Your task to perform on an android device: change timer sound Image 0: 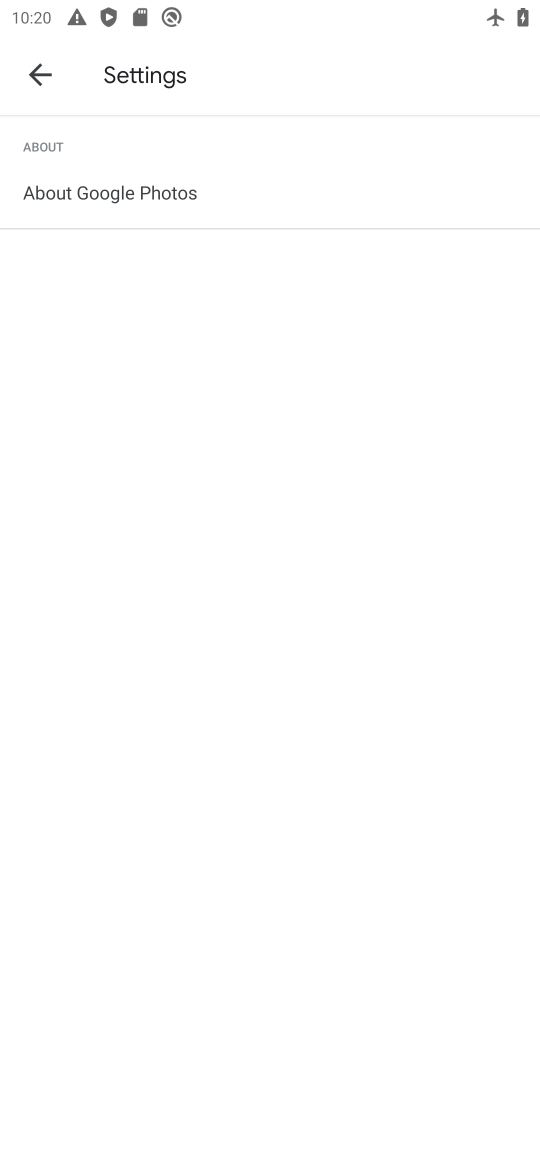
Step 0: press home button
Your task to perform on an android device: change timer sound Image 1: 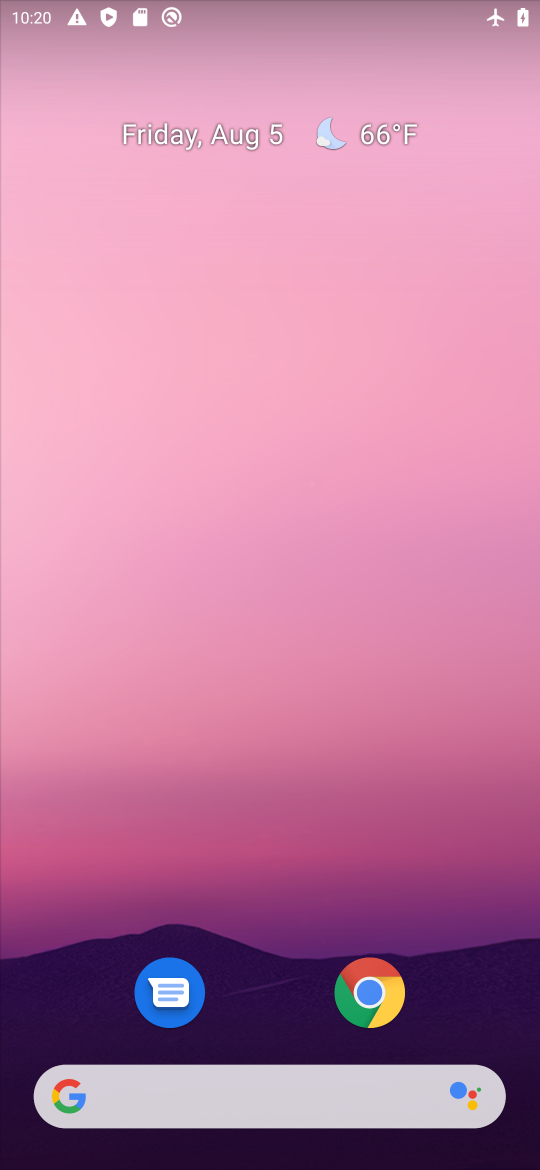
Step 1: drag from (294, 866) to (287, 378)
Your task to perform on an android device: change timer sound Image 2: 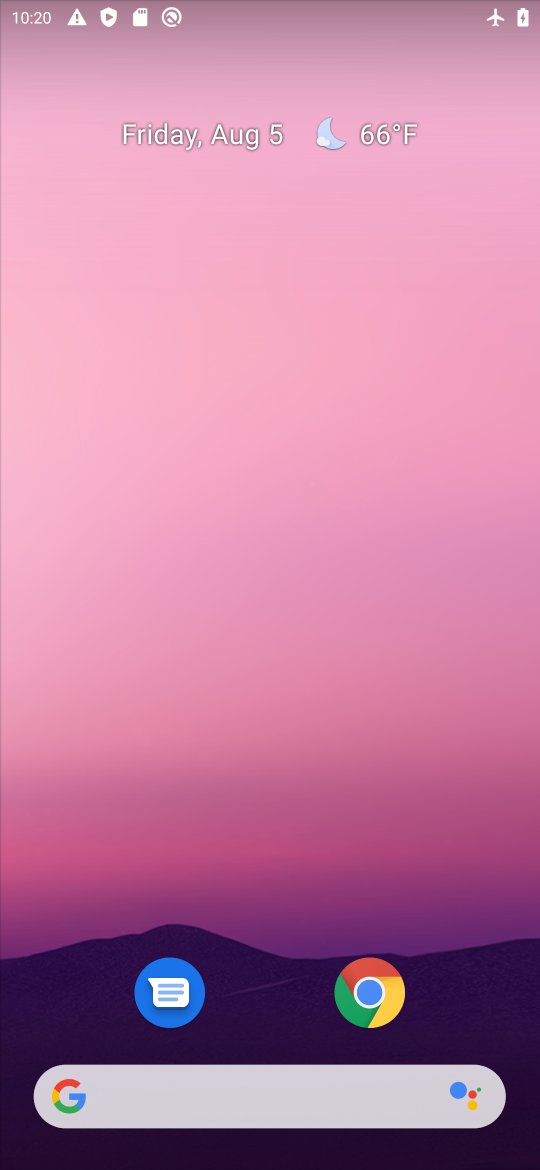
Step 2: drag from (304, 948) to (311, 212)
Your task to perform on an android device: change timer sound Image 3: 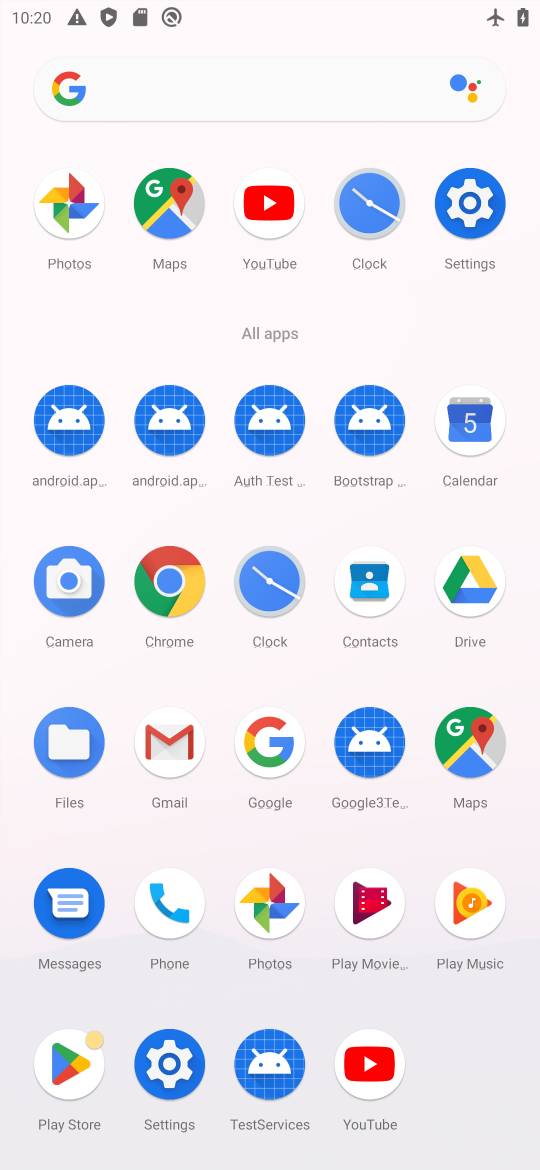
Step 3: click (281, 604)
Your task to perform on an android device: change timer sound Image 4: 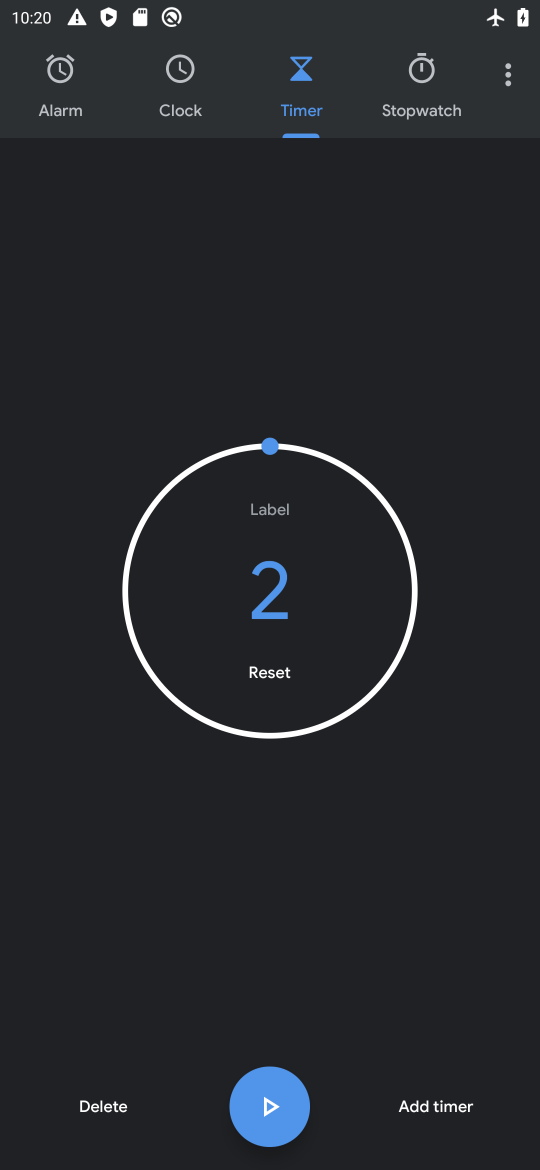
Step 4: click (504, 83)
Your task to perform on an android device: change timer sound Image 5: 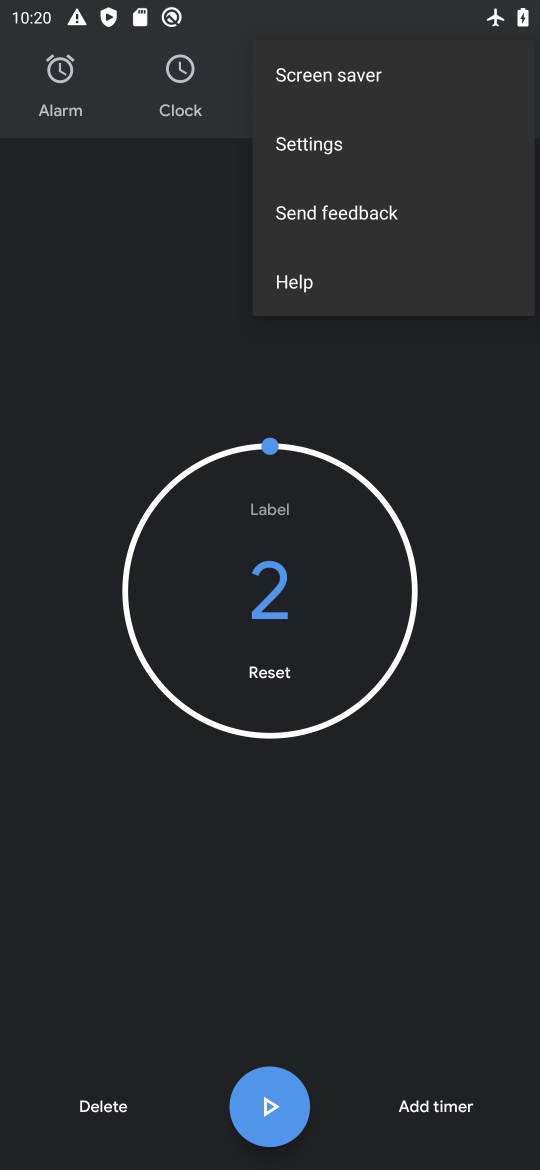
Step 5: click (349, 147)
Your task to perform on an android device: change timer sound Image 6: 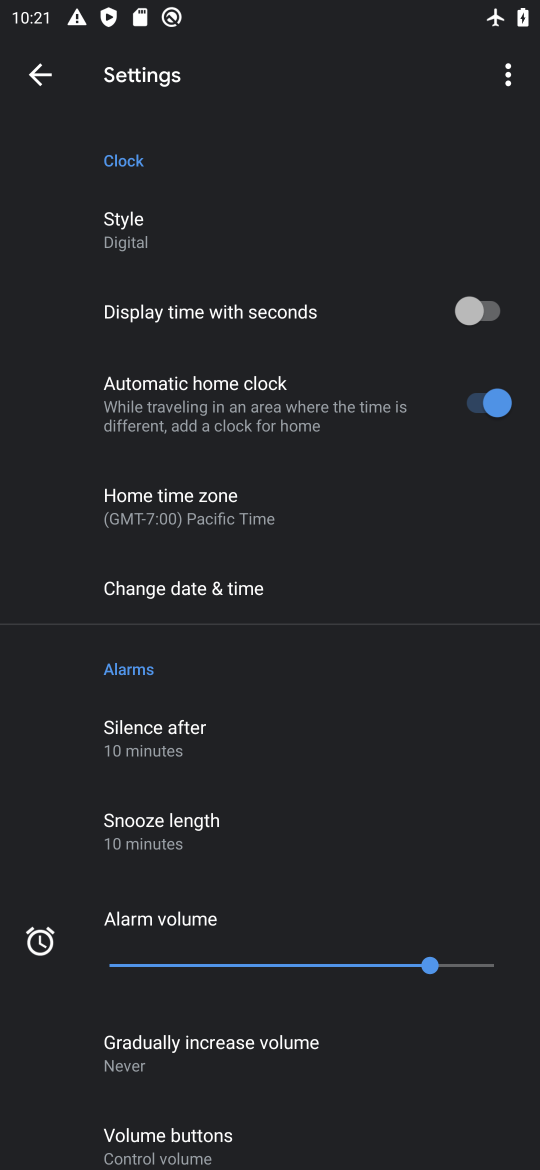
Step 6: drag from (234, 686) to (222, 540)
Your task to perform on an android device: change timer sound Image 7: 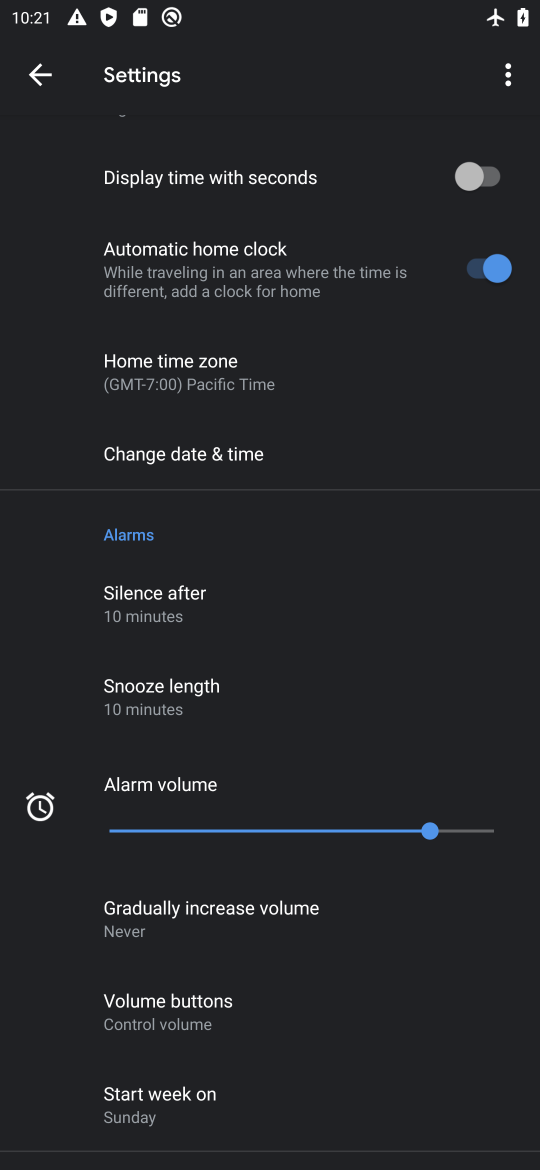
Step 7: drag from (258, 655) to (252, 565)
Your task to perform on an android device: change timer sound Image 8: 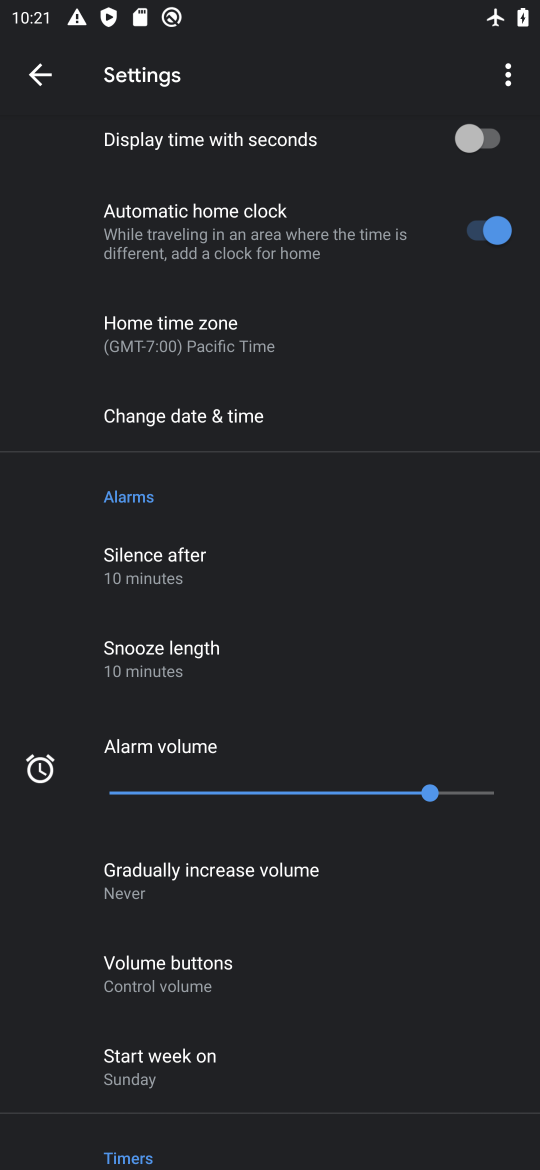
Step 8: drag from (224, 1016) to (199, 410)
Your task to perform on an android device: change timer sound Image 9: 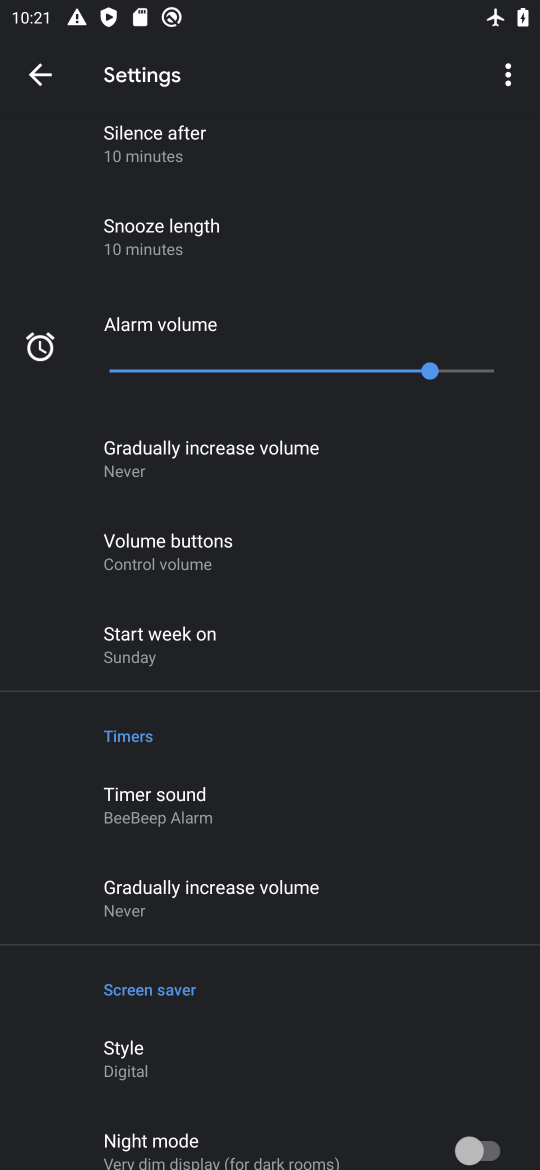
Step 9: click (230, 804)
Your task to perform on an android device: change timer sound Image 10: 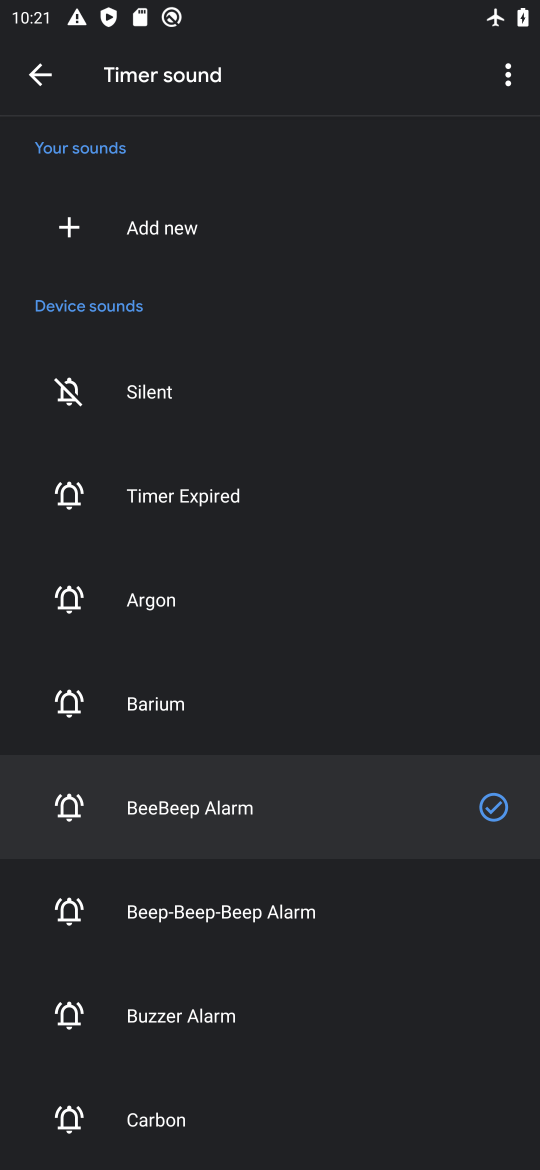
Step 10: click (186, 1007)
Your task to perform on an android device: change timer sound Image 11: 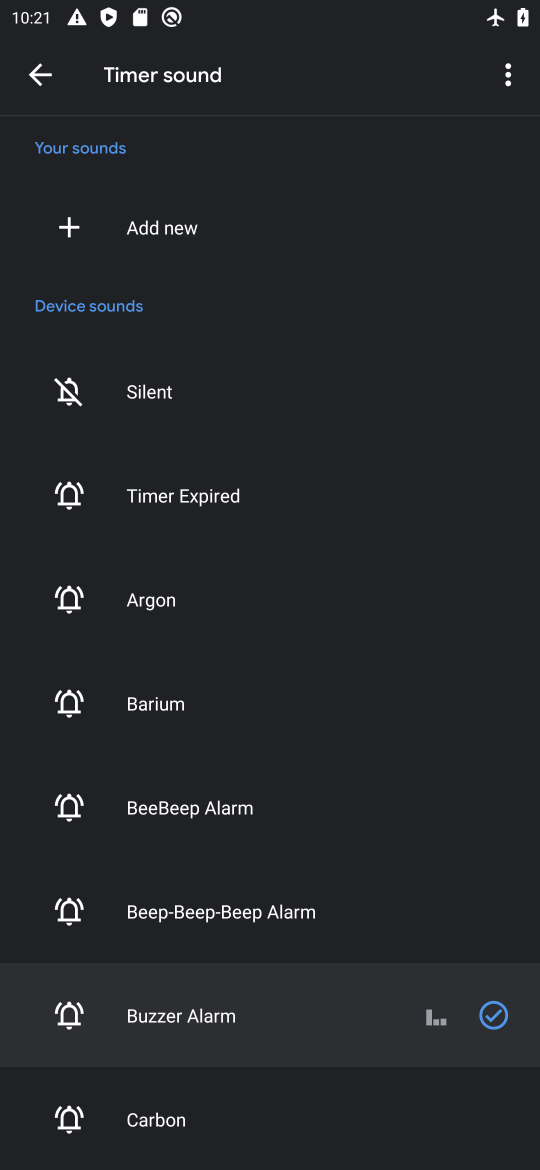
Step 11: task complete